Your task to perform on an android device: Go to CNN.com Image 0: 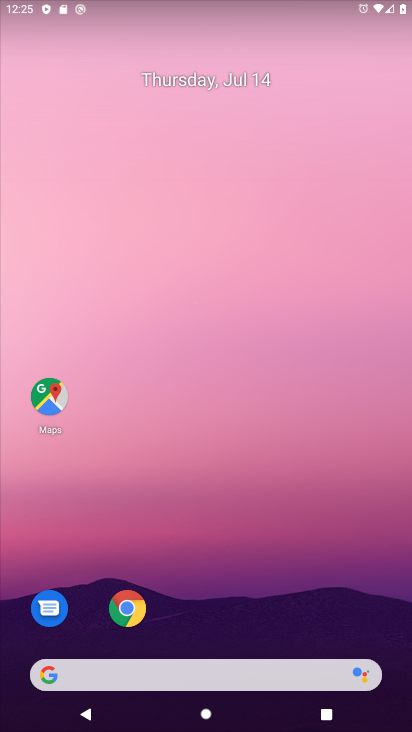
Step 0: click (127, 608)
Your task to perform on an android device: Go to CNN.com Image 1: 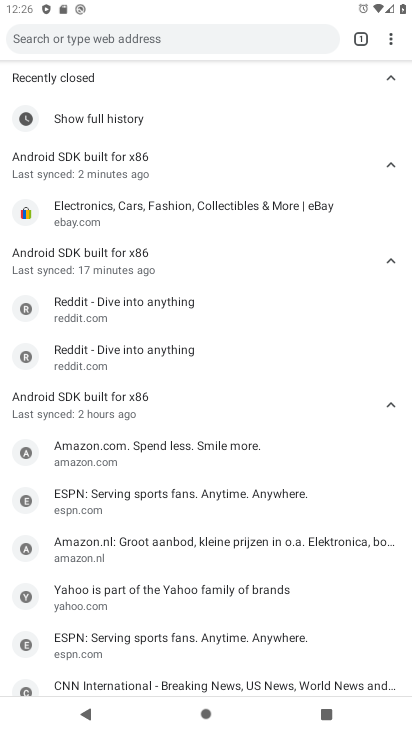
Step 1: click (262, 44)
Your task to perform on an android device: Go to CNN.com Image 2: 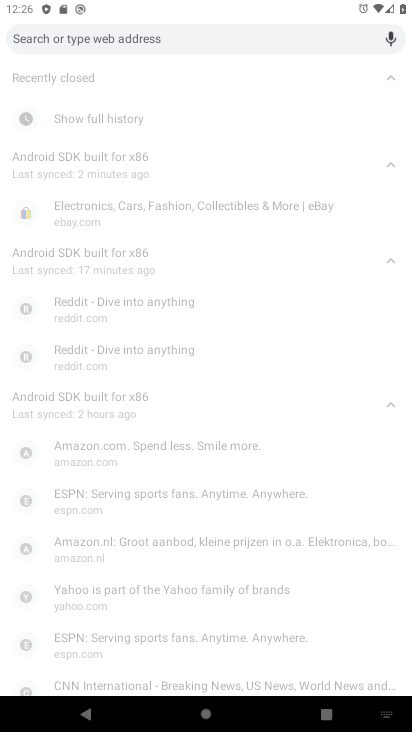
Step 2: type "CNN.com"
Your task to perform on an android device: Go to CNN.com Image 3: 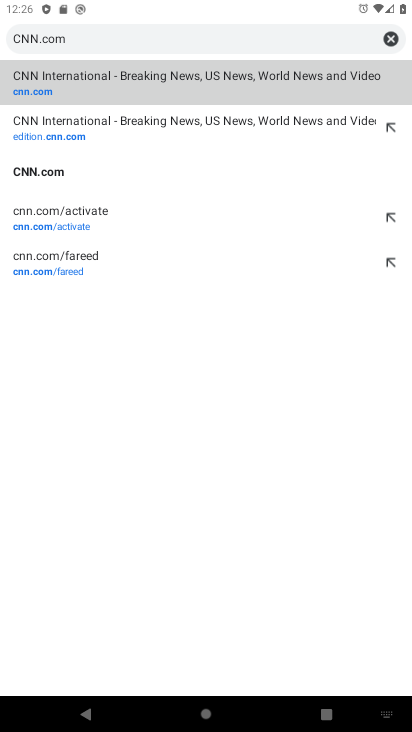
Step 3: click (41, 169)
Your task to perform on an android device: Go to CNN.com Image 4: 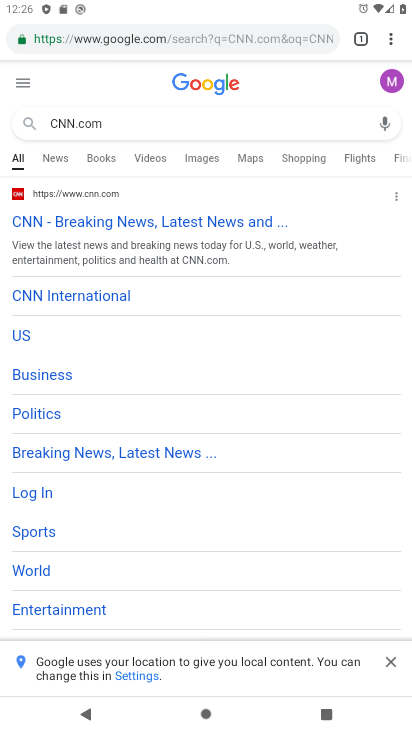
Step 4: click (21, 230)
Your task to perform on an android device: Go to CNN.com Image 5: 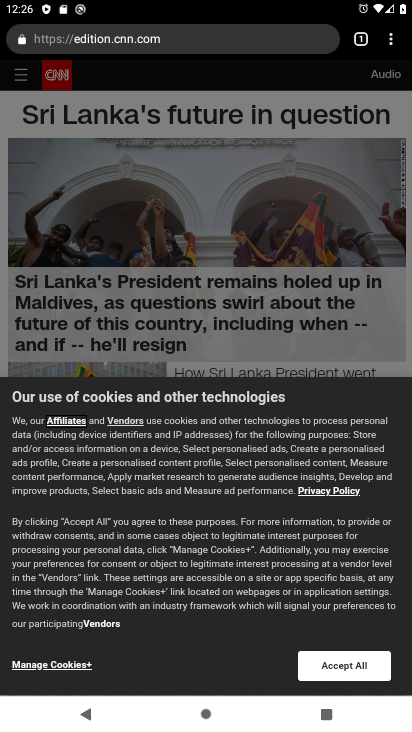
Step 5: task complete